Your task to perform on an android device: uninstall "Spotify: Music and Podcasts" Image 0: 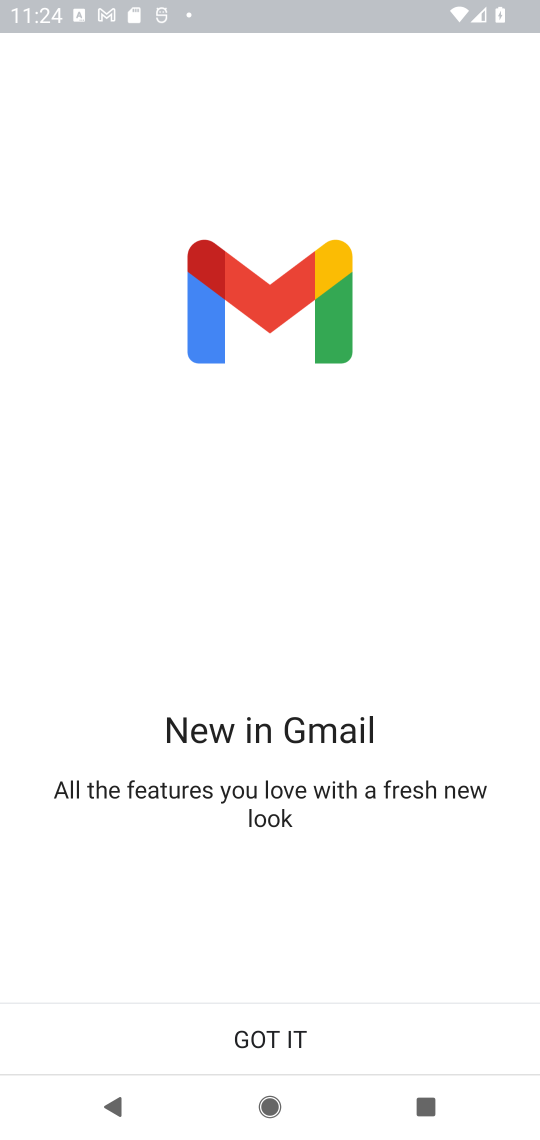
Step 0: press home button
Your task to perform on an android device: uninstall "Spotify: Music and Podcasts" Image 1: 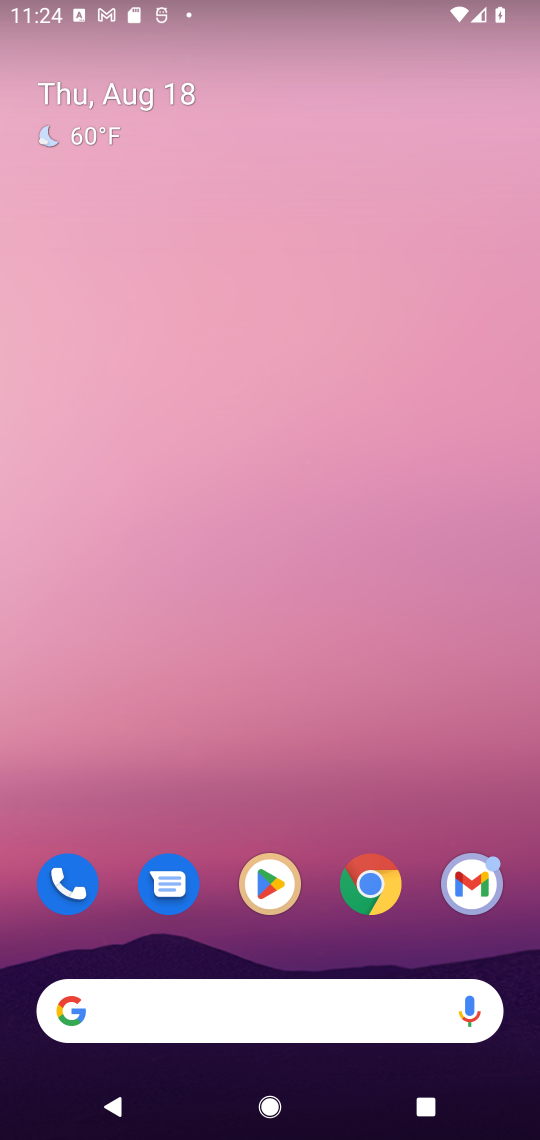
Step 1: drag from (251, 1006) to (261, 169)
Your task to perform on an android device: uninstall "Spotify: Music and Podcasts" Image 2: 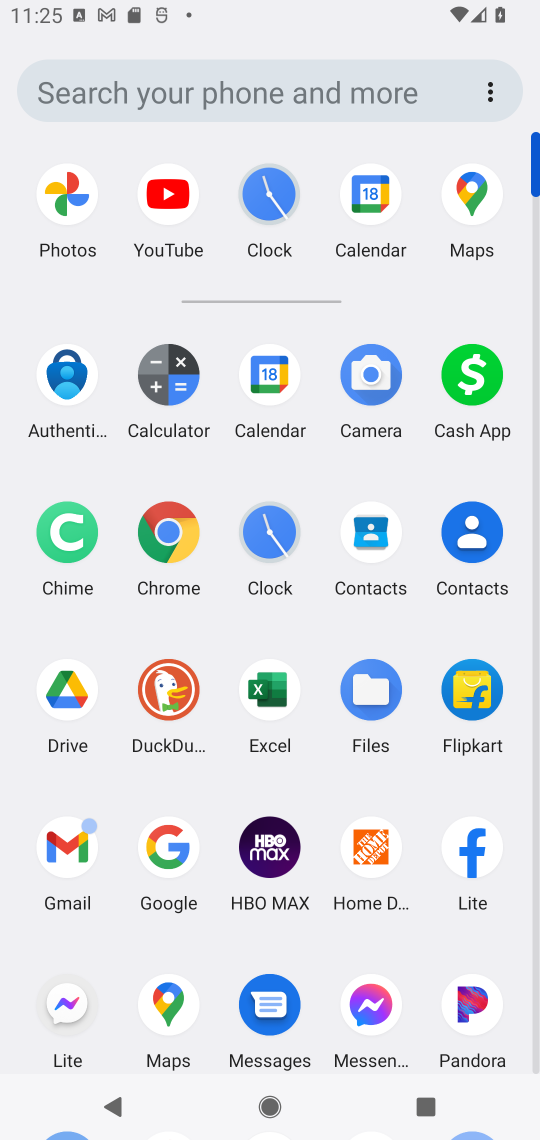
Step 2: drag from (315, 959) to (367, 533)
Your task to perform on an android device: uninstall "Spotify: Music and Podcasts" Image 3: 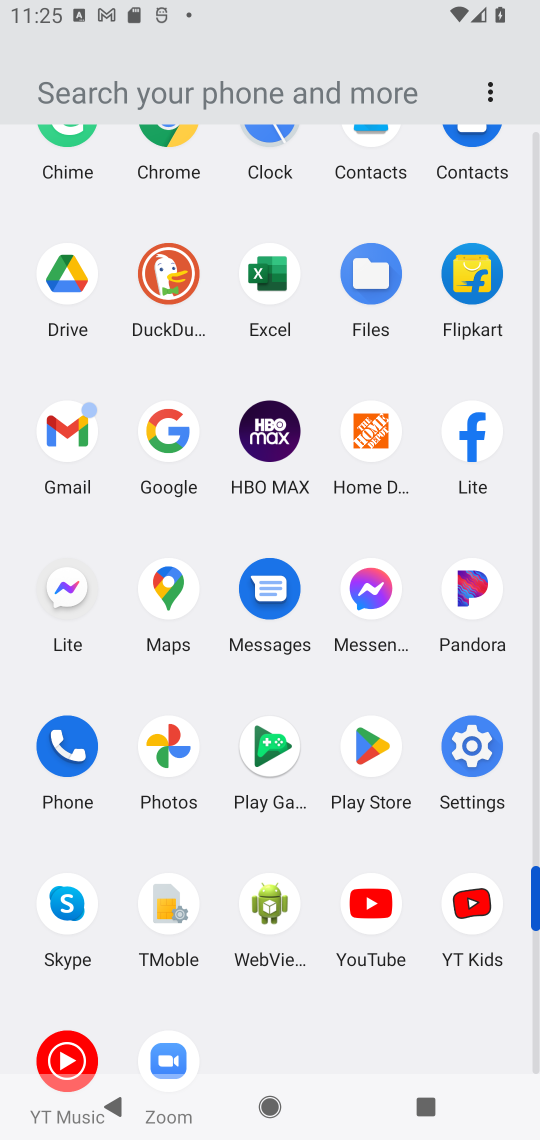
Step 3: click (367, 740)
Your task to perform on an android device: uninstall "Spotify: Music and Podcasts" Image 4: 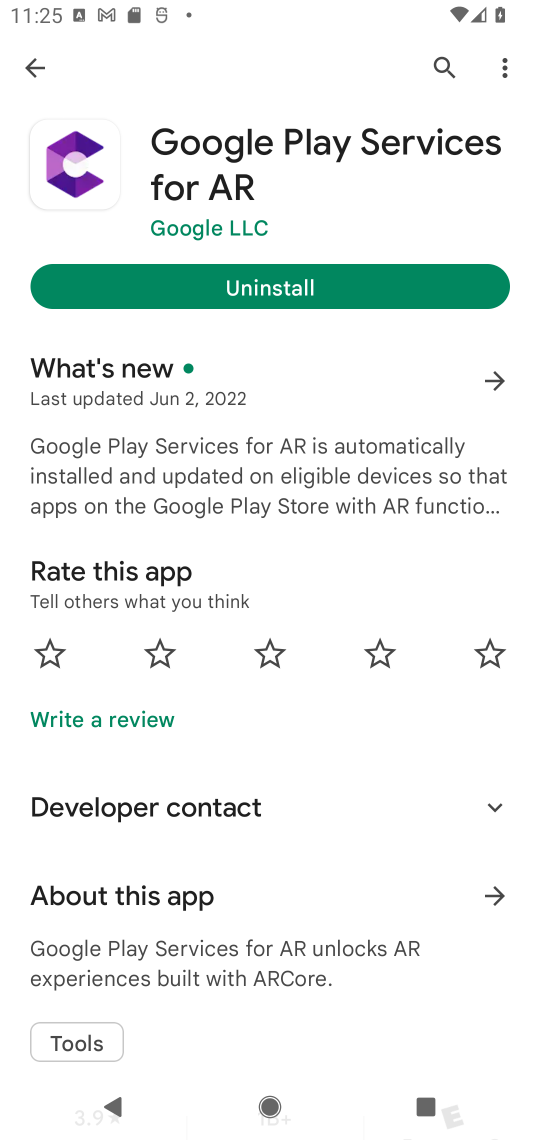
Step 4: press back button
Your task to perform on an android device: uninstall "Spotify: Music and Podcasts" Image 5: 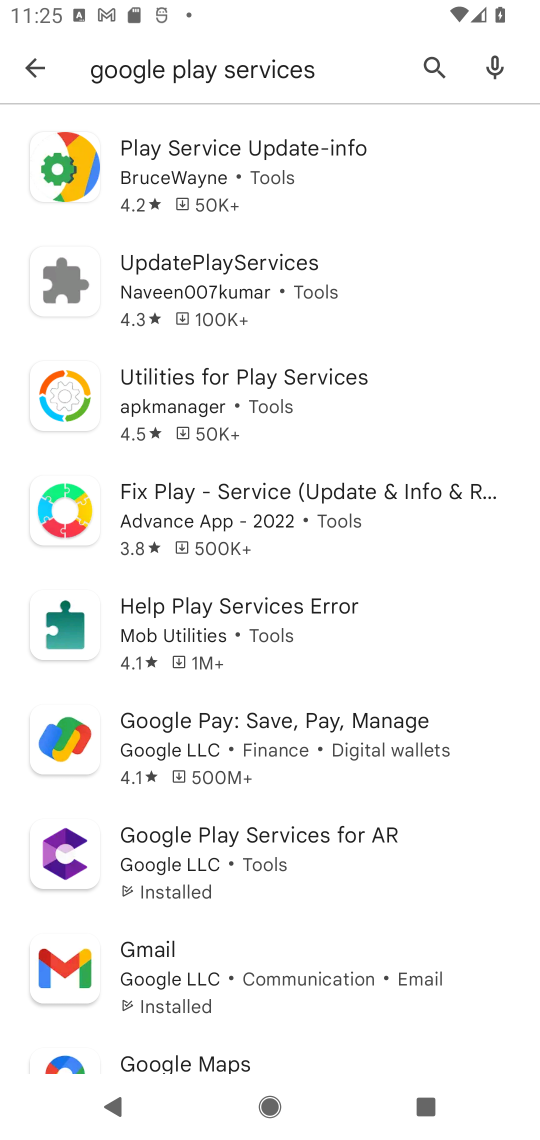
Step 5: press back button
Your task to perform on an android device: uninstall "Spotify: Music and Podcasts" Image 6: 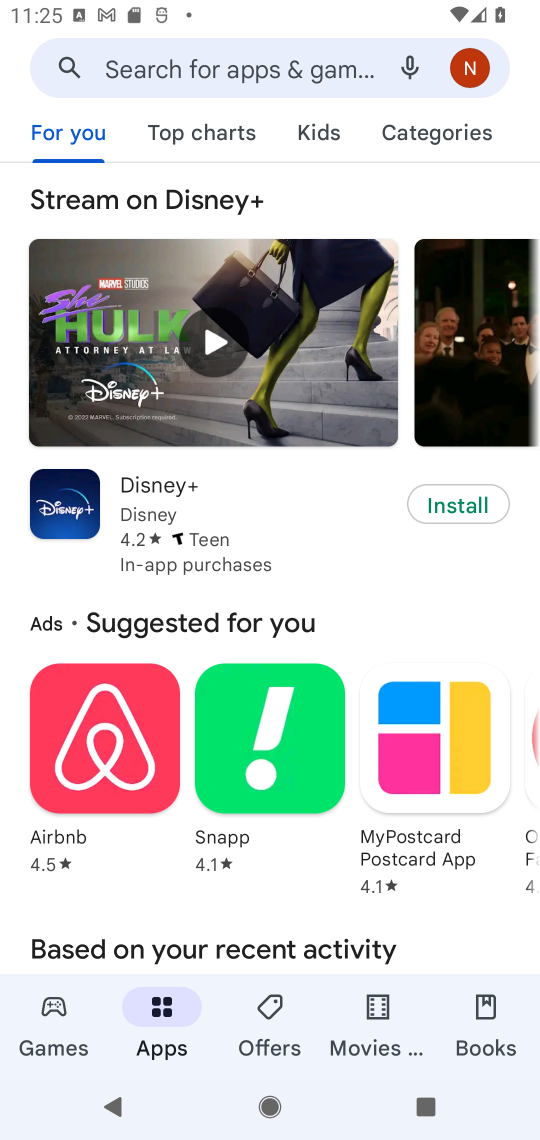
Step 6: click (277, 75)
Your task to perform on an android device: uninstall "Spotify: Music and Podcasts" Image 7: 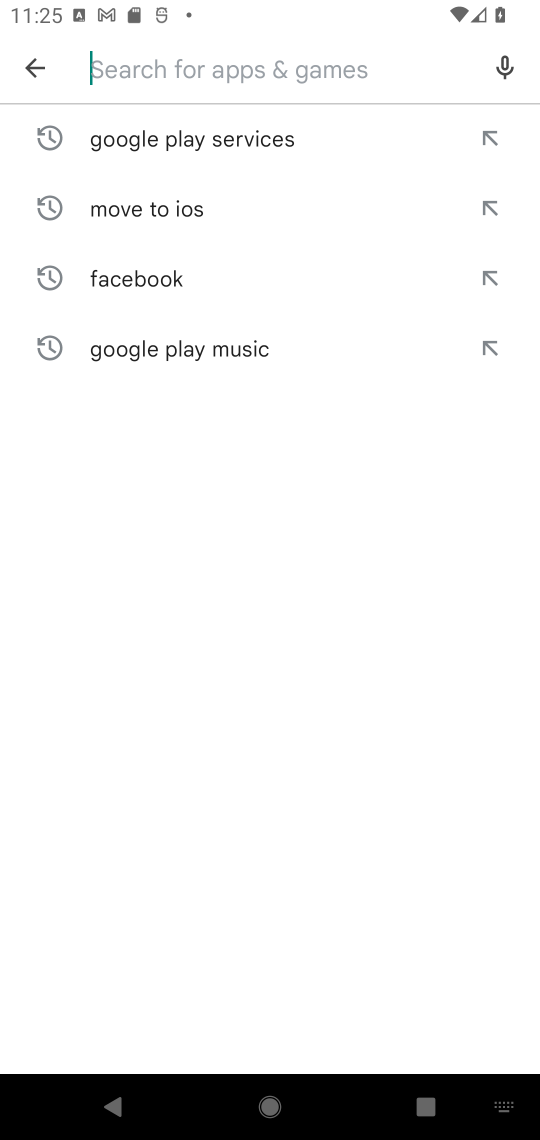
Step 7: type "Spotify"
Your task to perform on an android device: uninstall "Spotify: Music and Podcasts" Image 8: 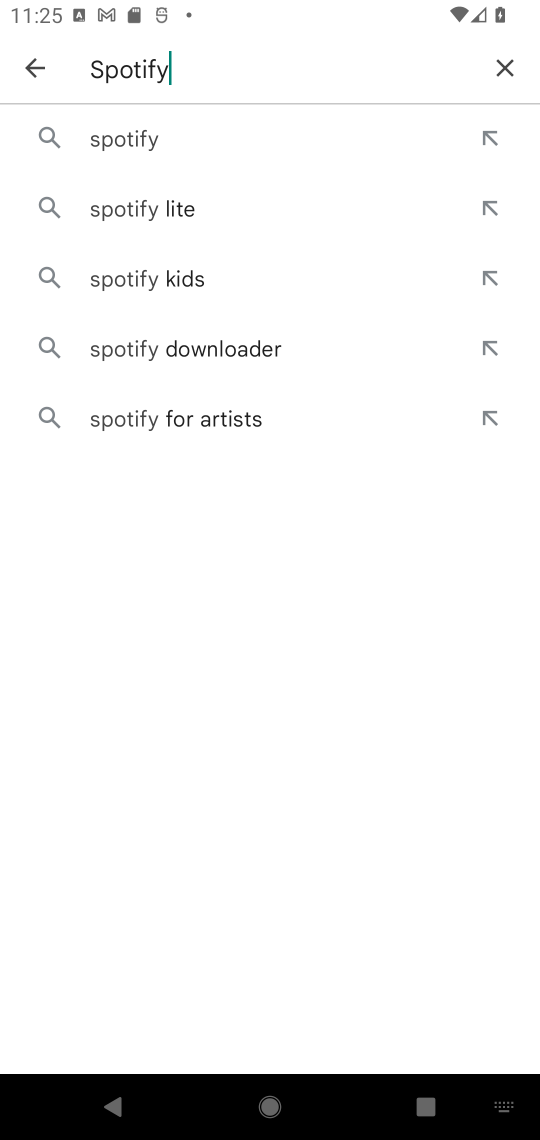
Step 8: click (157, 151)
Your task to perform on an android device: uninstall "Spotify: Music and Podcasts" Image 9: 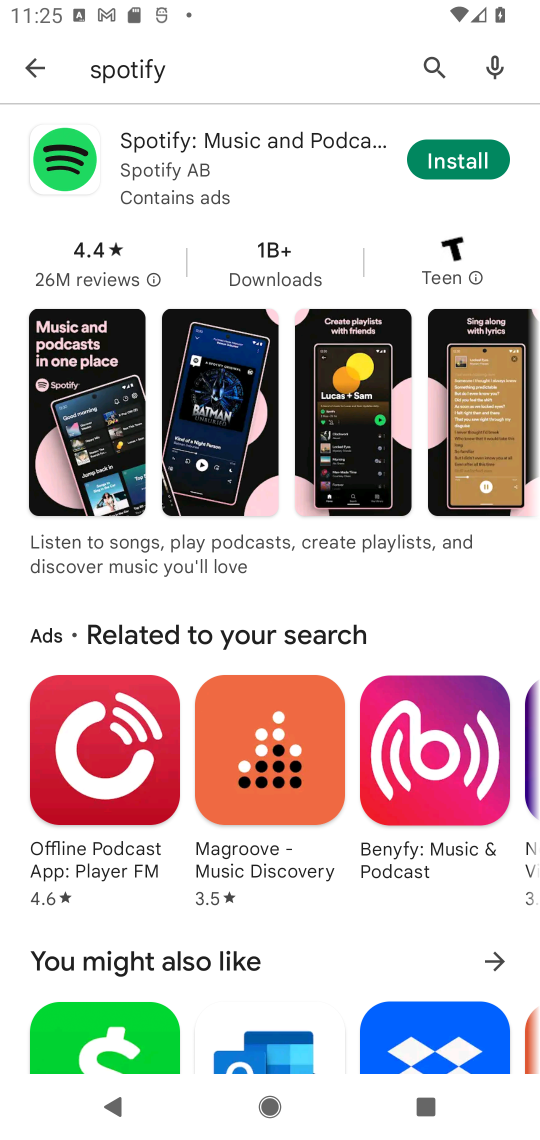
Step 9: task complete